Your task to perform on an android device: add a contact in the contacts app Image 0: 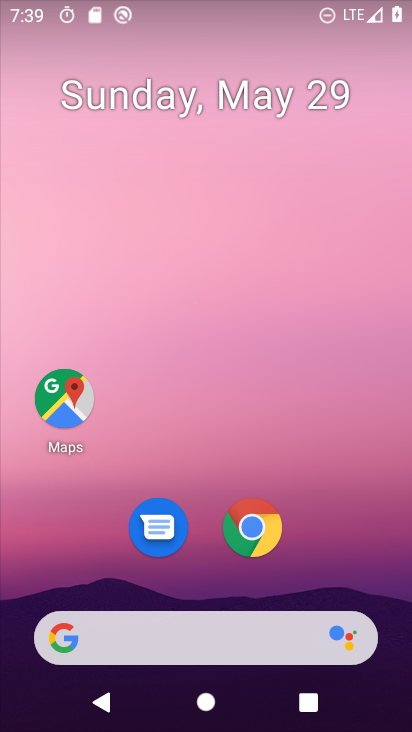
Step 0: drag from (365, 614) to (359, 151)
Your task to perform on an android device: add a contact in the contacts app Image 1: 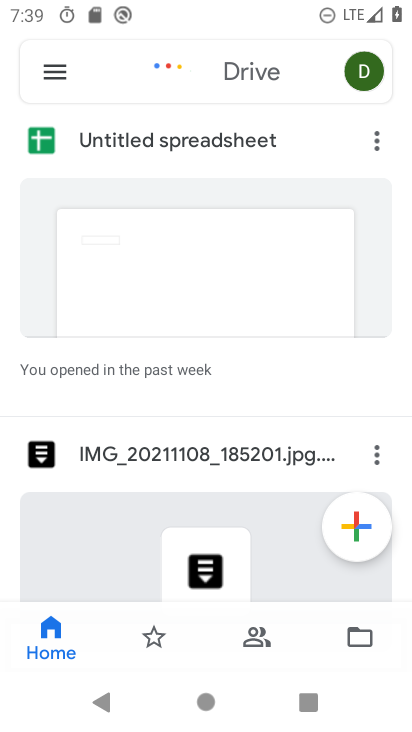
Step 1: press home button
Your task to perform on an android device: add a contact in the contacts app Image 2: 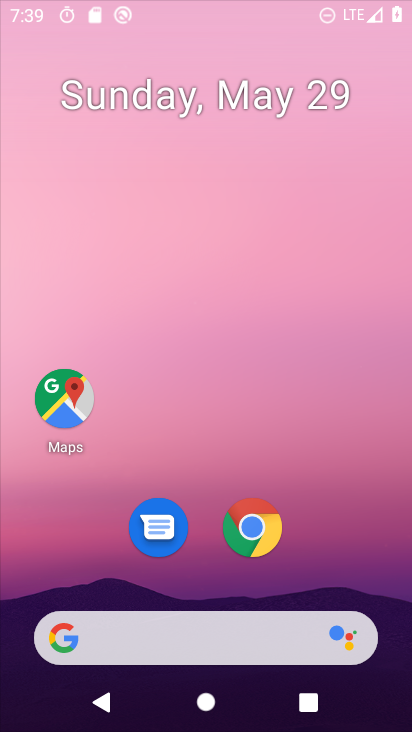
Step 2: drag from (383, 637) to (319, 29)
Your task to perform on an android device: add a contact in the contacts app Image 3: 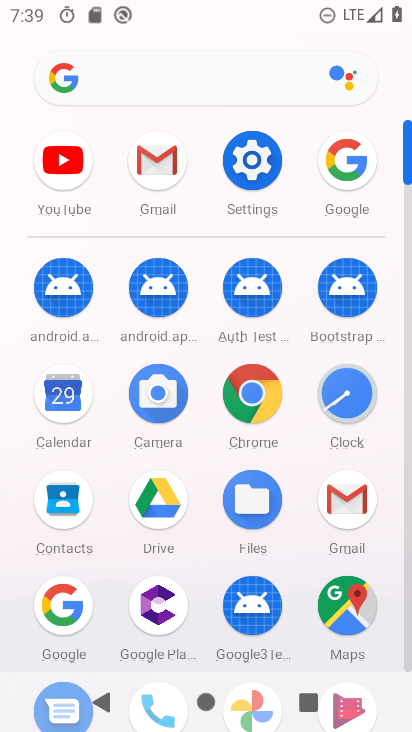
Step 3: click (75, 500)
Your task to perform on an android device: add a contact in the contacts app Image 4: 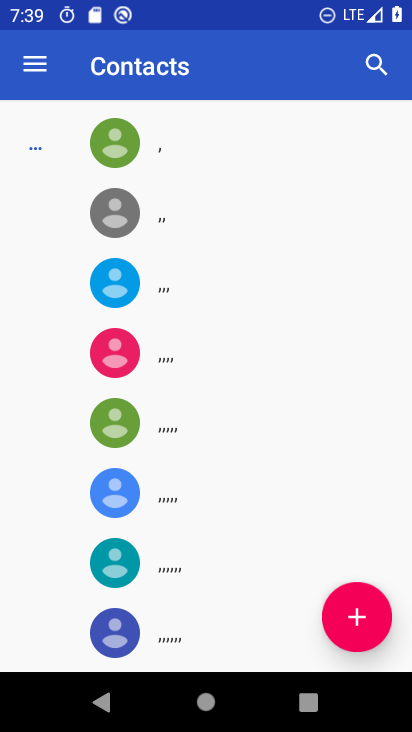
Step 4: click (347, 626)
Your task to perform on an android device: add a contact in the contacts app Image 5: 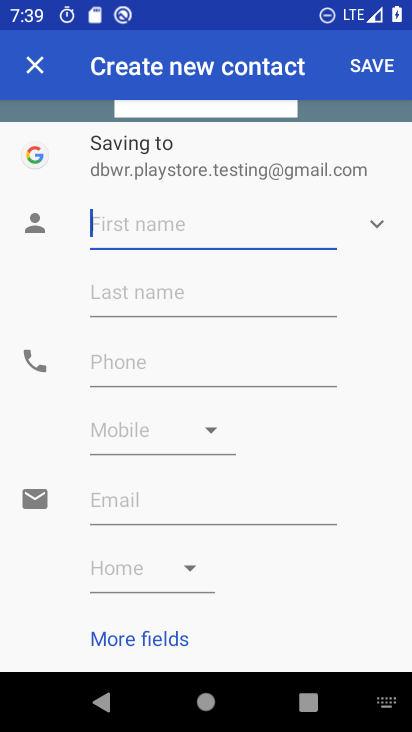
Step 5: type "kavsco"
Your task to perform on an android device: add a contact in the contacts app Image 6: 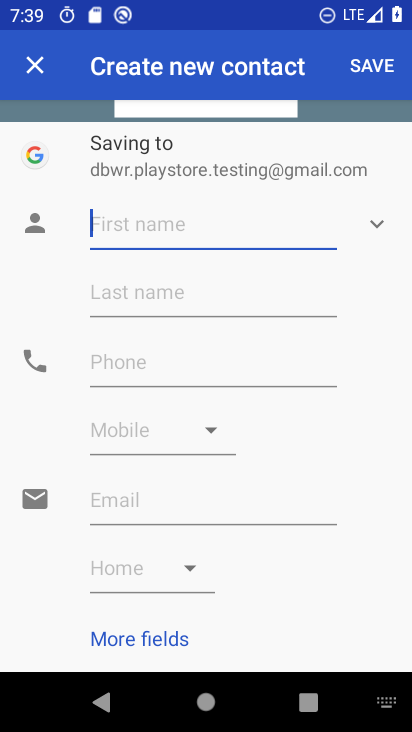
Step 6: click (367, 72)
Your task to perform on an android device: add a contact in the contacts app Image 7: 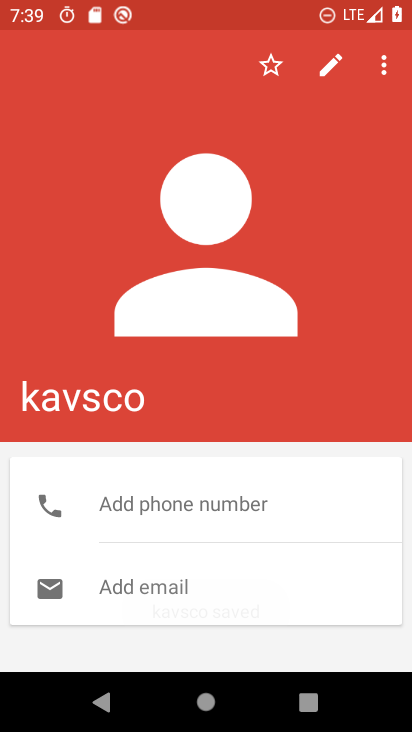
Step 7: task complete